Your task to perform on an android device: Open Chrome and go to the settings page Image 0: 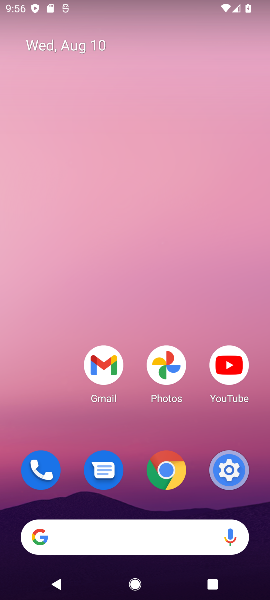
Step 0: click (176, 475)
Your task to perform on an android device: Open Chrome and go to the settings page Image 1: 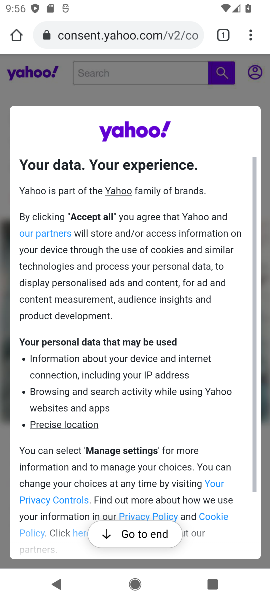
Step 1: click (260, 41)
Your task to perform on an android device: Open Chrome and go to the settings page Image 2: 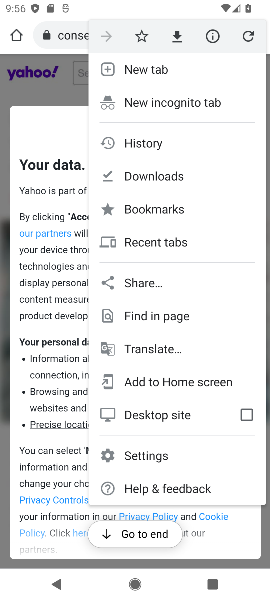
Step 2: click (145, 450)
Your task to perform on an android device: Open Chrome and go to the settings page Image 3: 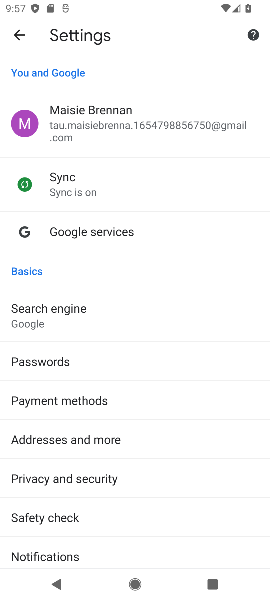
Step 3: task complete